Your task to perform on an android device: change keyboard looks Image 0: 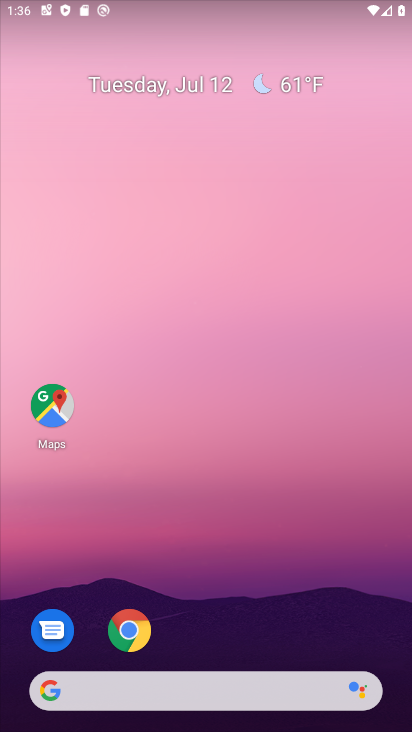
Step 0: drag from (199, 637) to (179, 132)
Your task to perform on an android device: change keyboard looks Image 1: 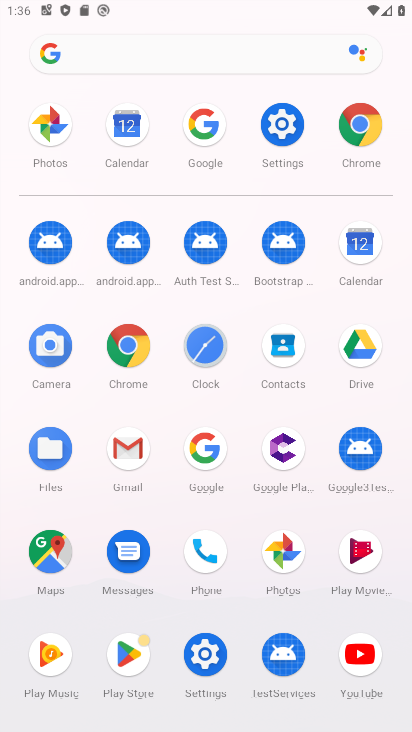
Step 1: click (281, 117)
Your task to perform on an android device: change keyboard looks Image 2: 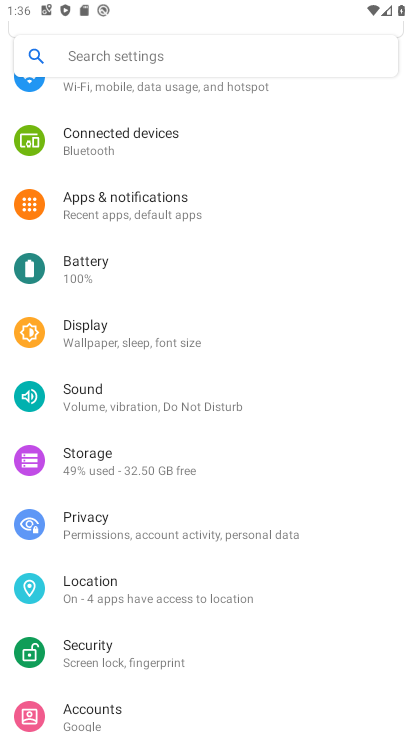
Step 2: drag from (184, 631) to (196, 171)
Your task to perform on an android device: change keyboard looks Image 3: 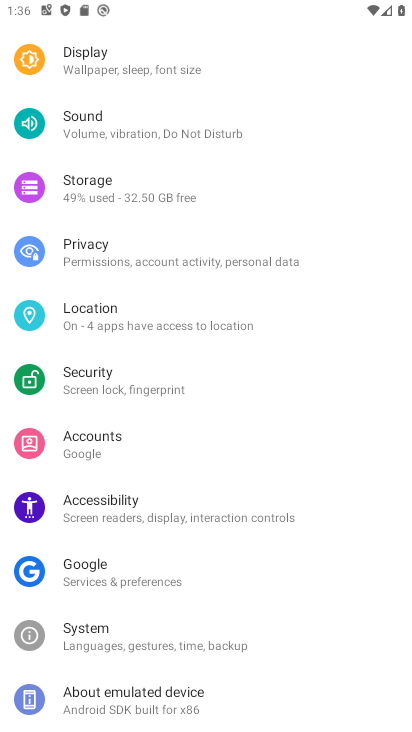
Step 3: click (135, 621)
Your task to perform on an android device: change keyboard looks Image 4: 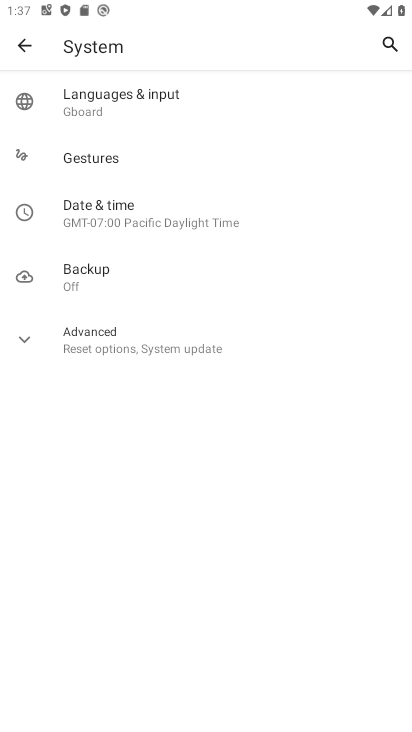
Step 4: click (134, 328)
Your task to perform on an android device: change keyboard looks Image 5: 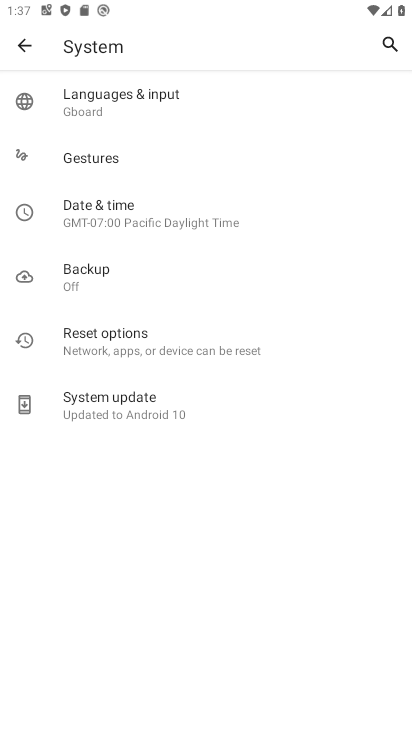
Step 5: click (128, 100)
Your task to perform on an android device: change keyboard looks Image 6: 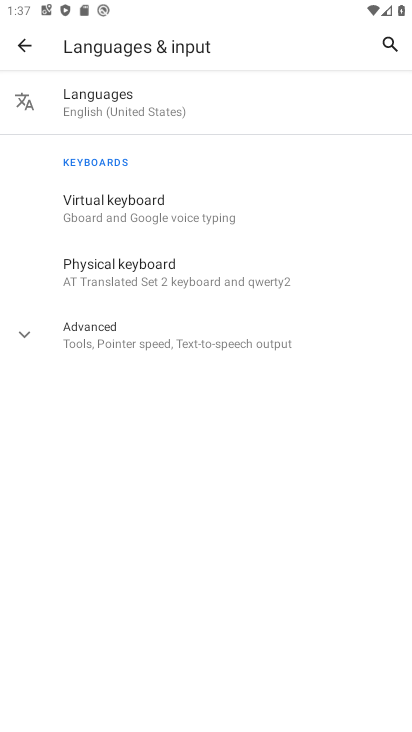
Step 6: click (156, 189)
Your task to perform on an android device: change keyboard looks Image 7: 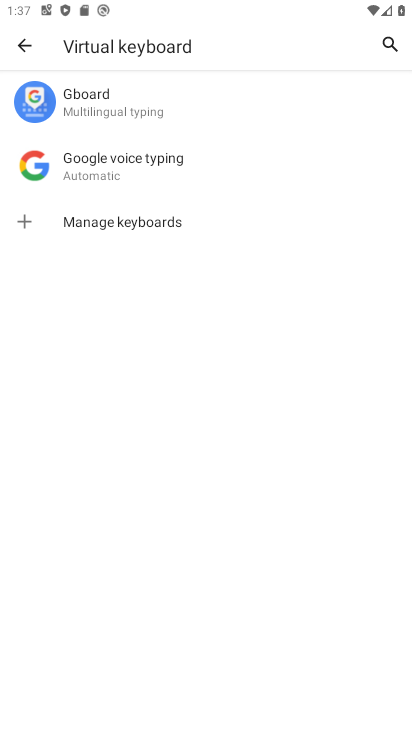
Step 7: click (138, 108)
Your task to perform on an android device: change keyboard looks Image 8: 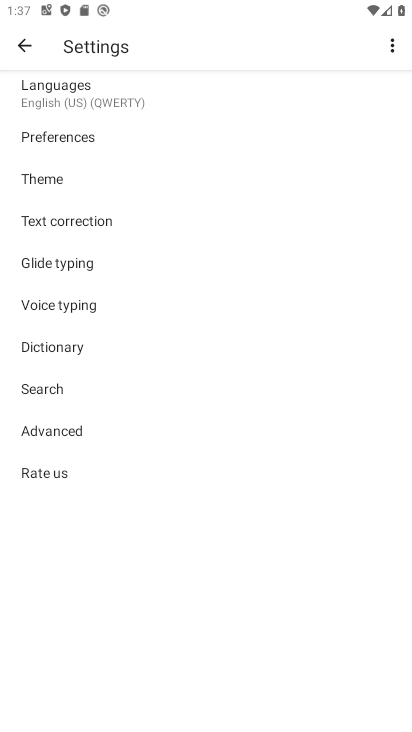
Step 8: click (73, 177)
Your task to perform on an android device: change keyboard looks Image 9: 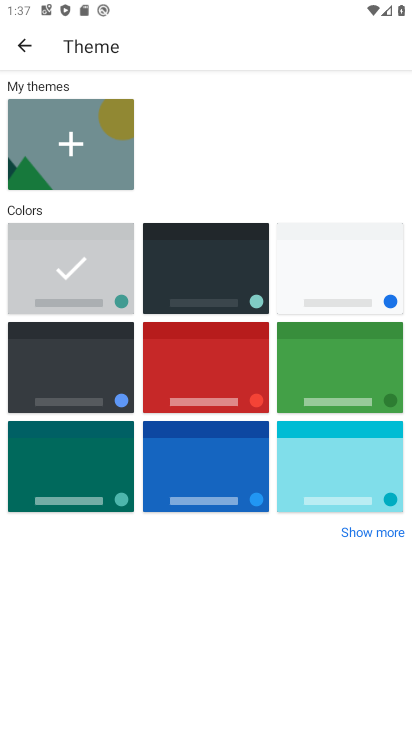
Step 9: click (162, 235)
Your task to perform on an android device: change keyboard looks Image 10: 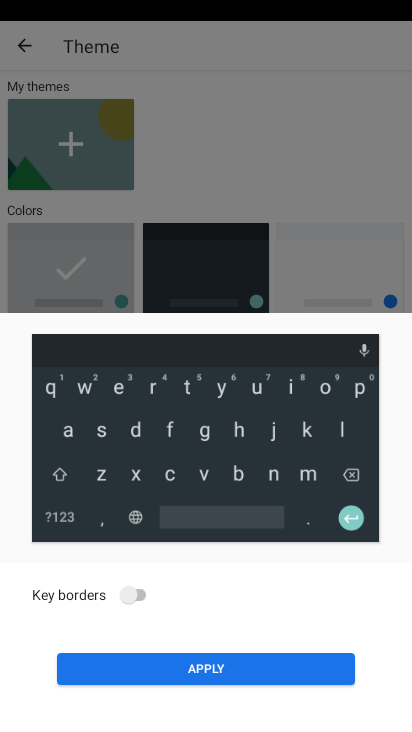
Step 10: click (228, 661)
Your task to perform on an android device: change keyboard looks Image 11: 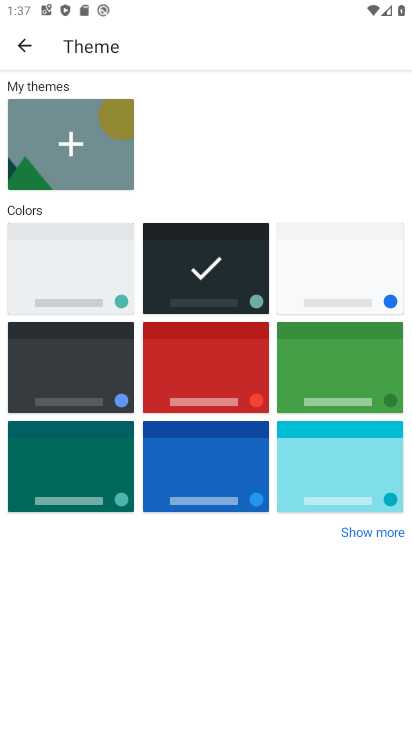
Step 11: task complete